Your task to perform on an android device: delete a single message in the gmail app Image 0: 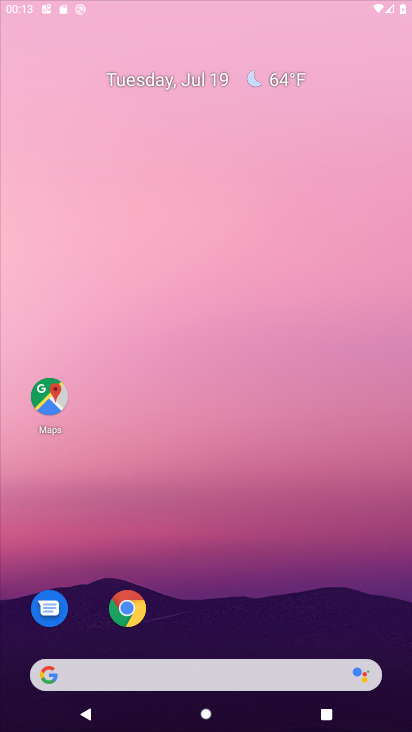
Step 0: click (326, 129)
Your task to perform on an android device: delete a single message in the gmail app Image 1: 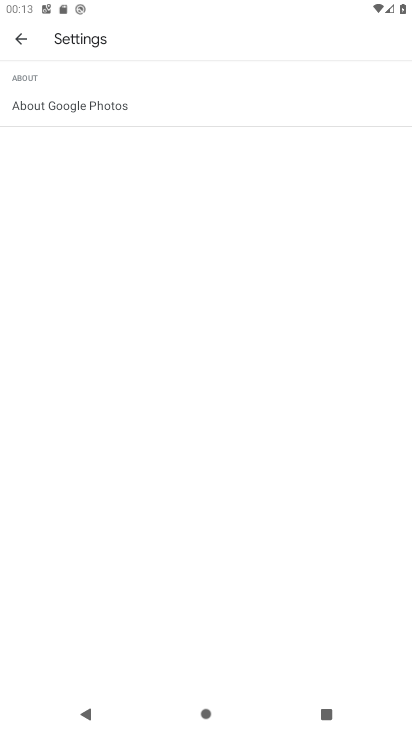
Step 1: press home button
Your task to perform on an android device: delete a single message in the gmail app Image 2: 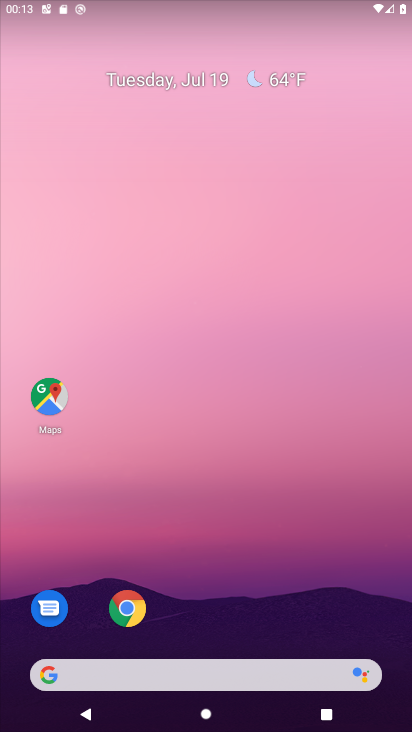
Step 2: drag from (281, 603) to (268, 59)
Your task to perform on an android device: delete a single message in the gmail app Image 3: 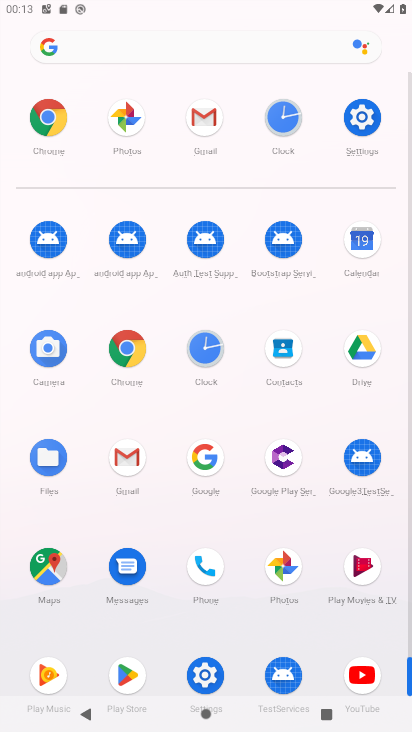
Step 3: click (138, 469)
Your task to perform on an android device: delete a single message in the gmail app Image 4: 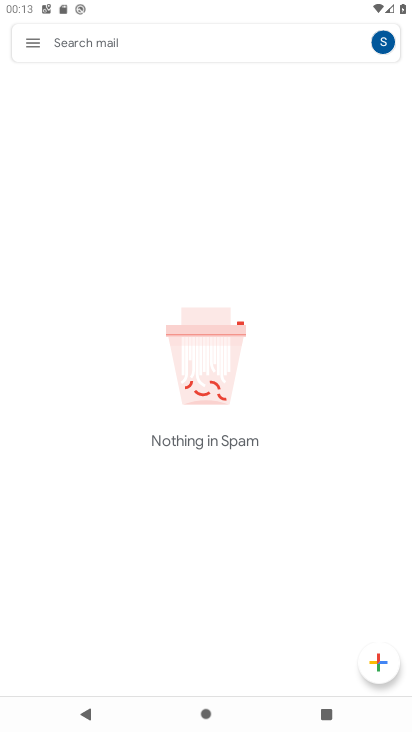
Step 4: click (41, 53)
Your task to perform on an android device: delete a single message in the gmail app Image 5: 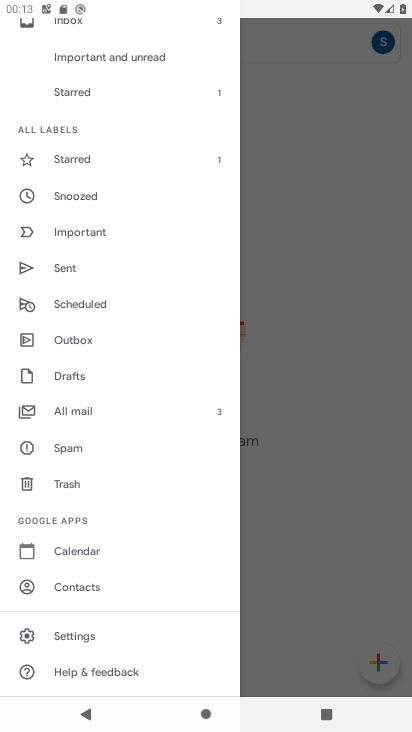
Step 5: drag from (141, 108) to (115, 421)
Your task to perform on an android device: delete a single message in the gmail app Image 6: 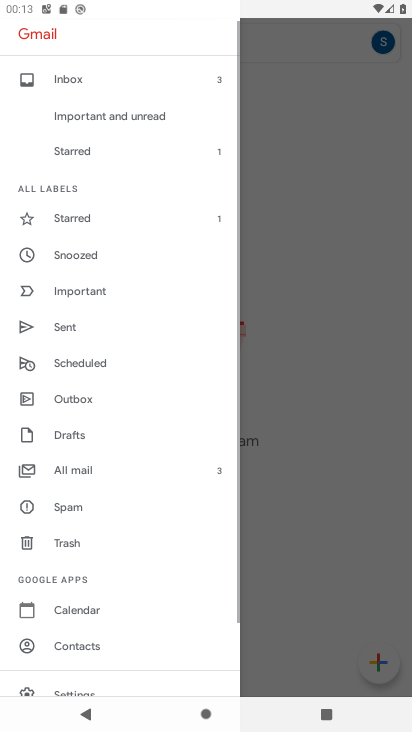
Step 6: click (119, 81)
Your task to perform on an android device: delete a single message in the gmail app Image 7: 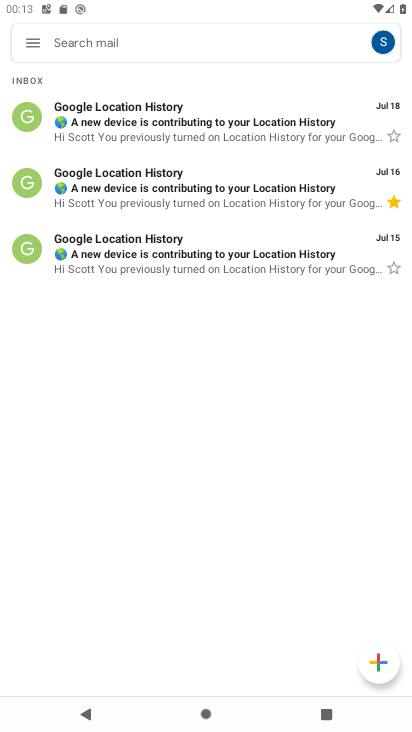
Step 7: click (250, 114)
Your task to perform on an android device: delete a single message in the gmail app Image 8: 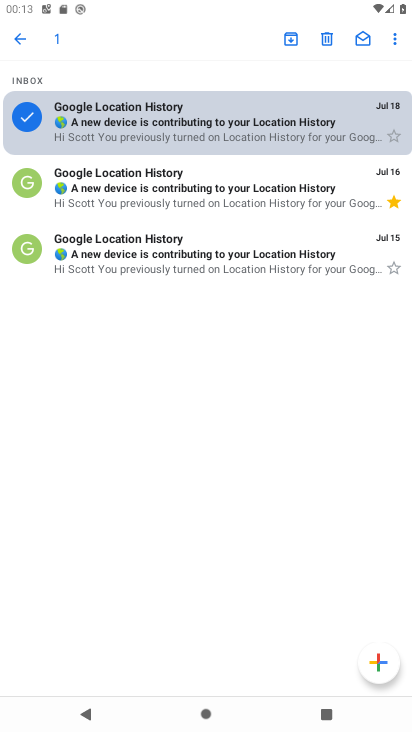
Step 8: click (250, 114)
Your task to perform on an android device: delete a single message in the gmail app Image 9: 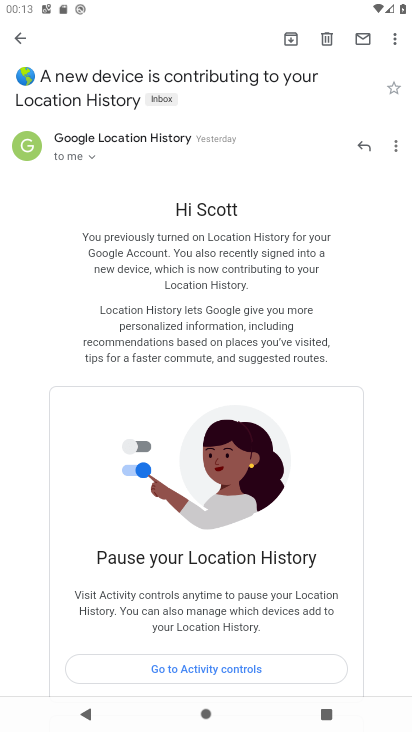
Step 9: press back button
Your task to perform on an android device: delete a single message in the gmail app Image 10: 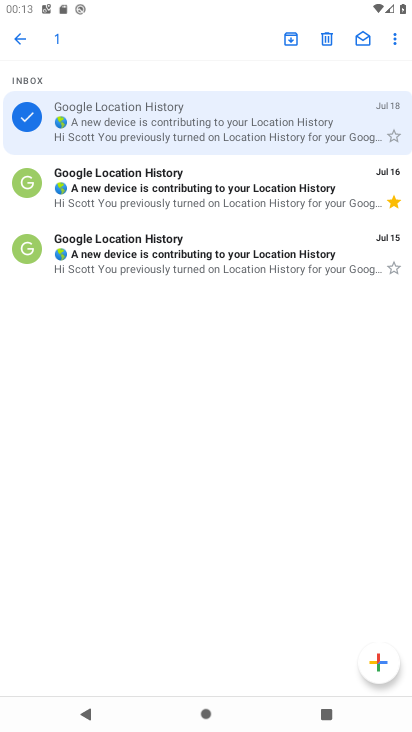
Step 10: click (332, 45)
Your task to perform on an android device: delete a single message in the gmail app Image 11: 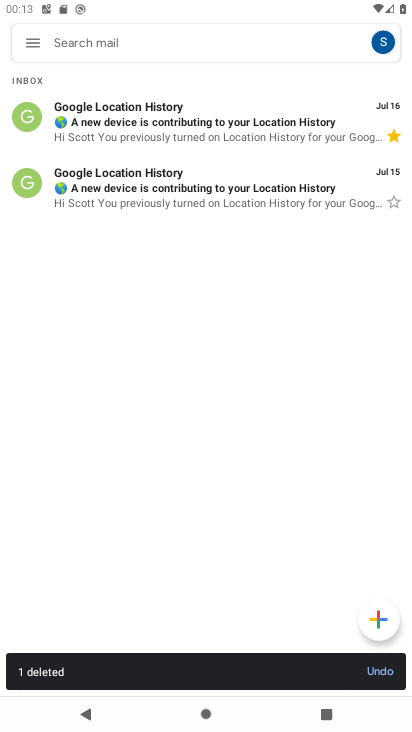
Step 11: task complete